Your task to perform on an android device: turn off improve location accuracy Image 0: 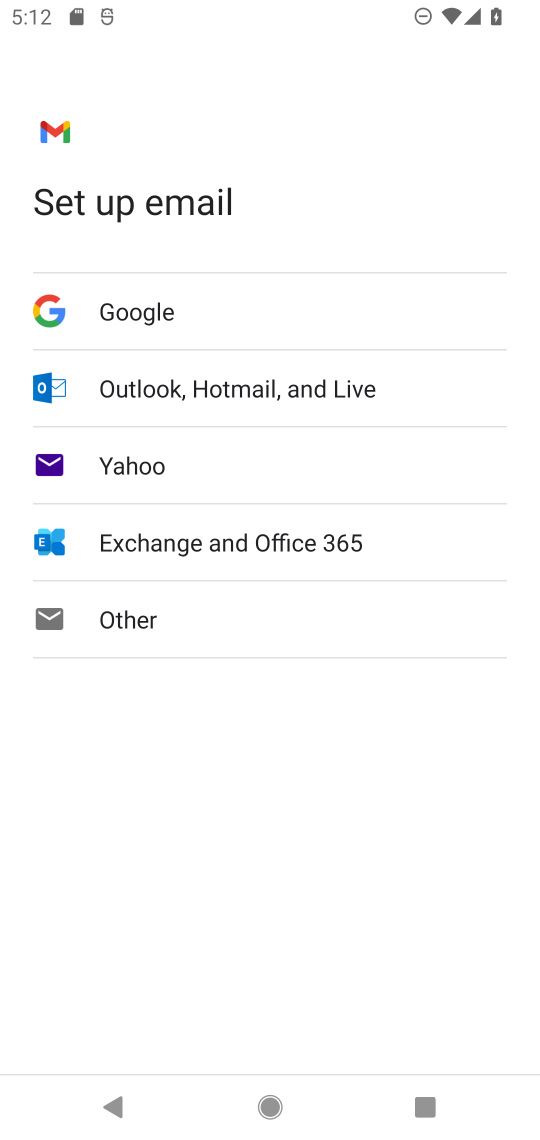
Step 0: press home button
Your task to perform on an android device: turn off improve location accuracy Image 1: 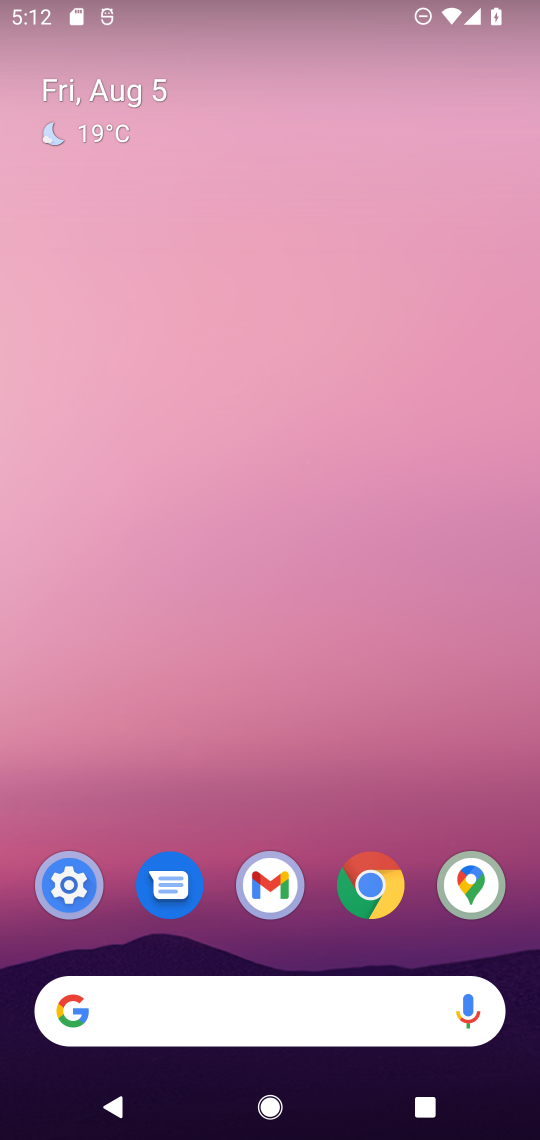
Step 1: drag from (326, 964) to (321, 259)
Your task to perform on an android device: turn off improve location accuracy Image 2: 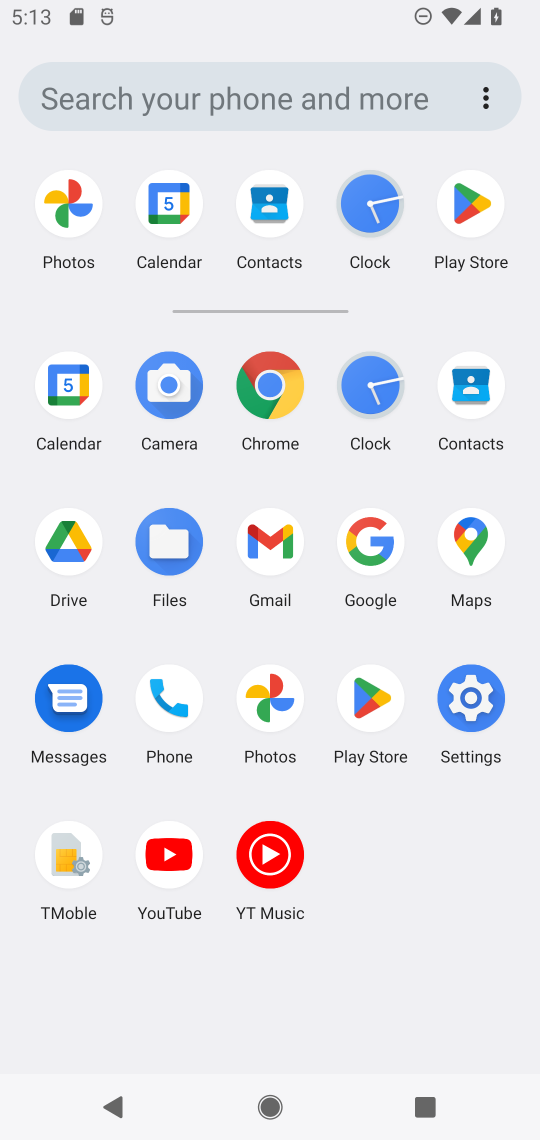
Step 2: click (484, 703)
Your task to perform on an android device: turn off improve location accuracy Image 3: 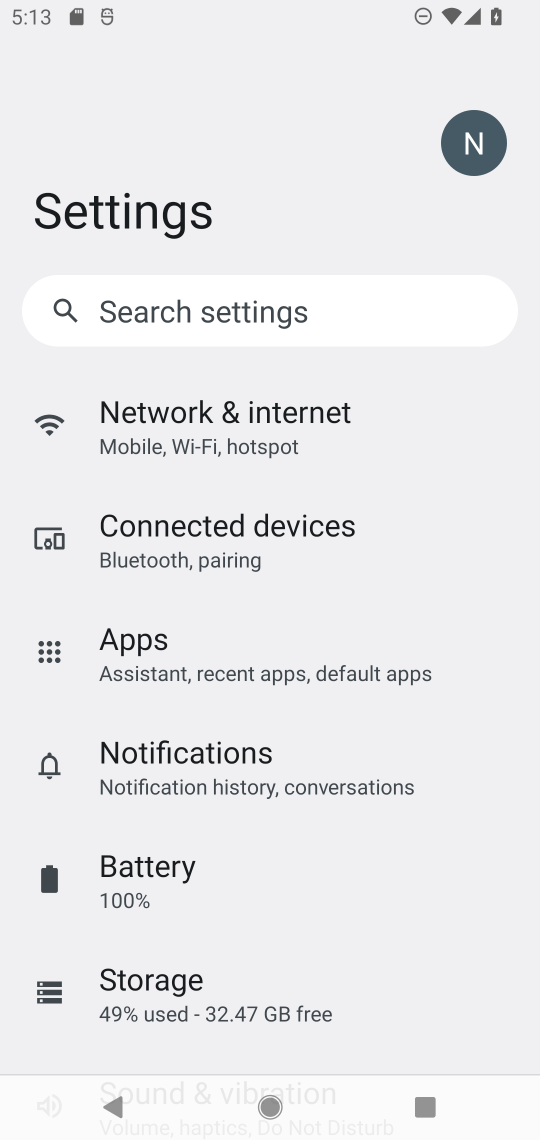
Step 3: drag from (197, 949) to (200, 622)
Your task to perform on an android device: turn off improve location accuracy Image 4: 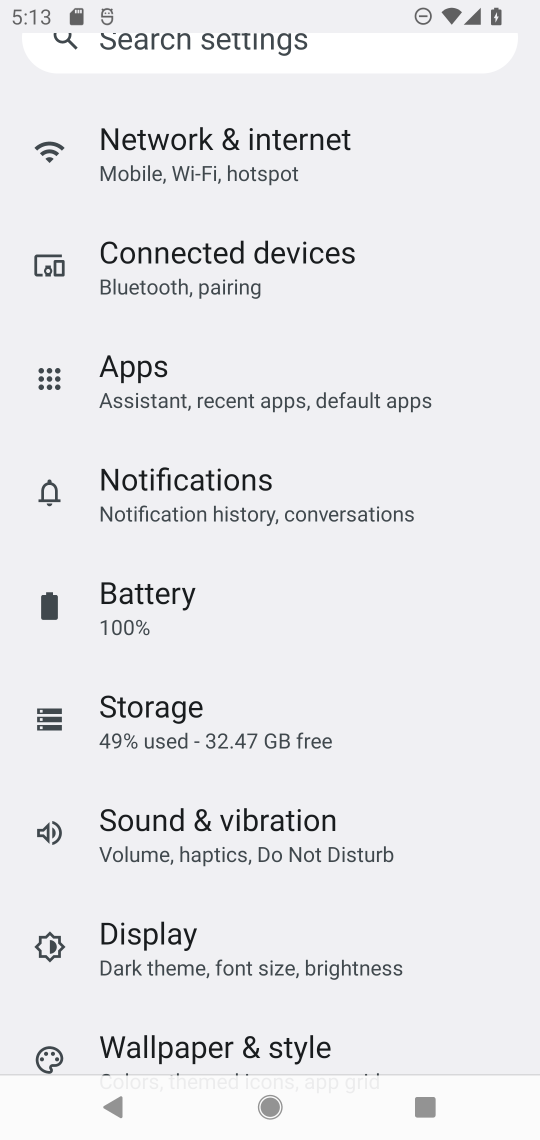
Step 4: drag from (175, 988) to (166, 601)
Your task to perform on an android device: turn off improve location accuracy Image 5: 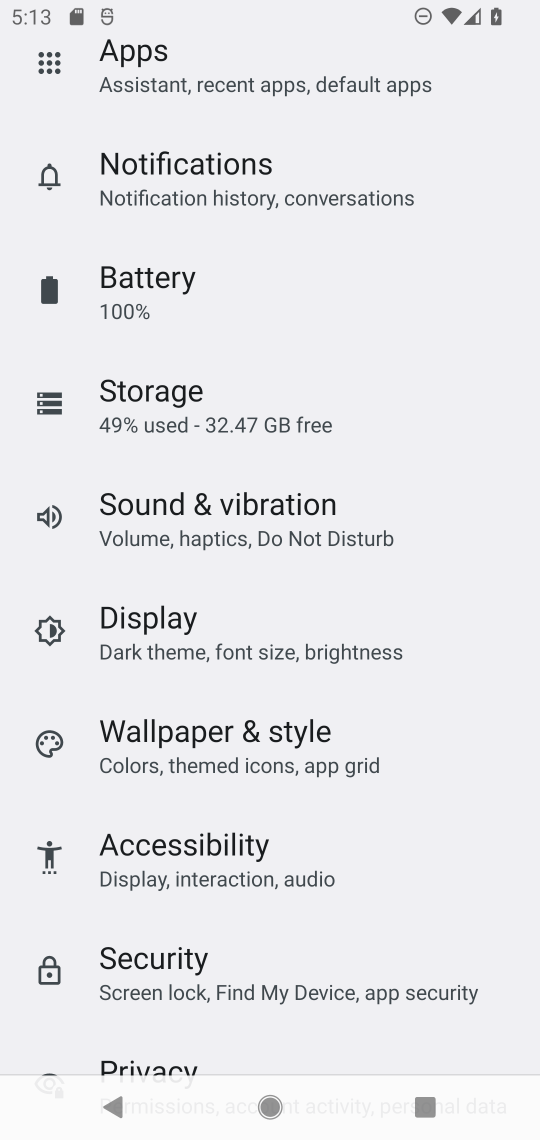
Step 5: drag from (165, 270) to (198, 857)
Your task to perform on an android device: turn off improve location accuracy Image 6: 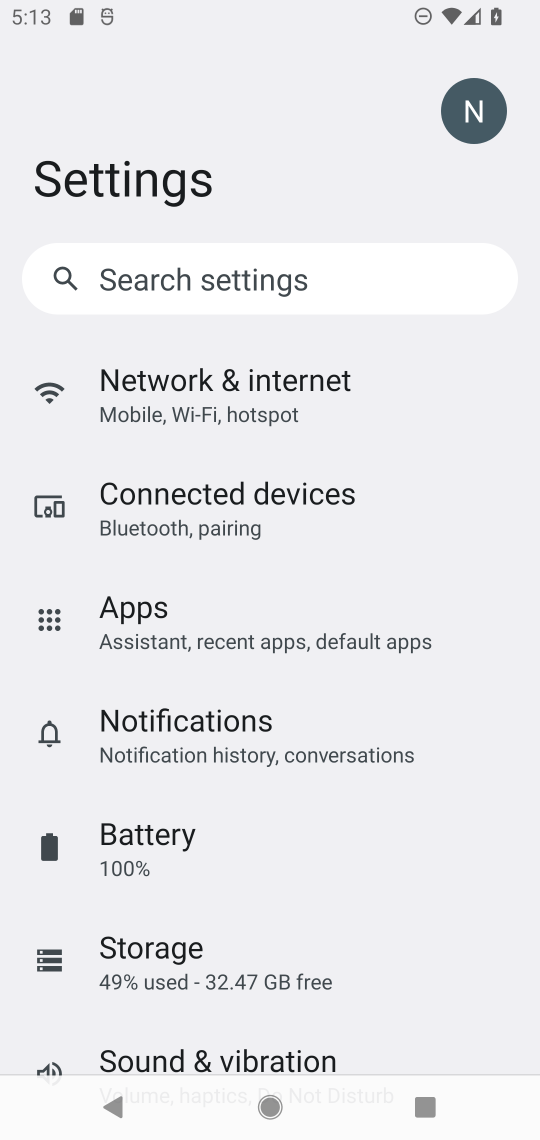
Step 6: drag from (180, 1007) to (162, 519)
Your task to perform on an android device: turn off improve location accuracy Image 7: 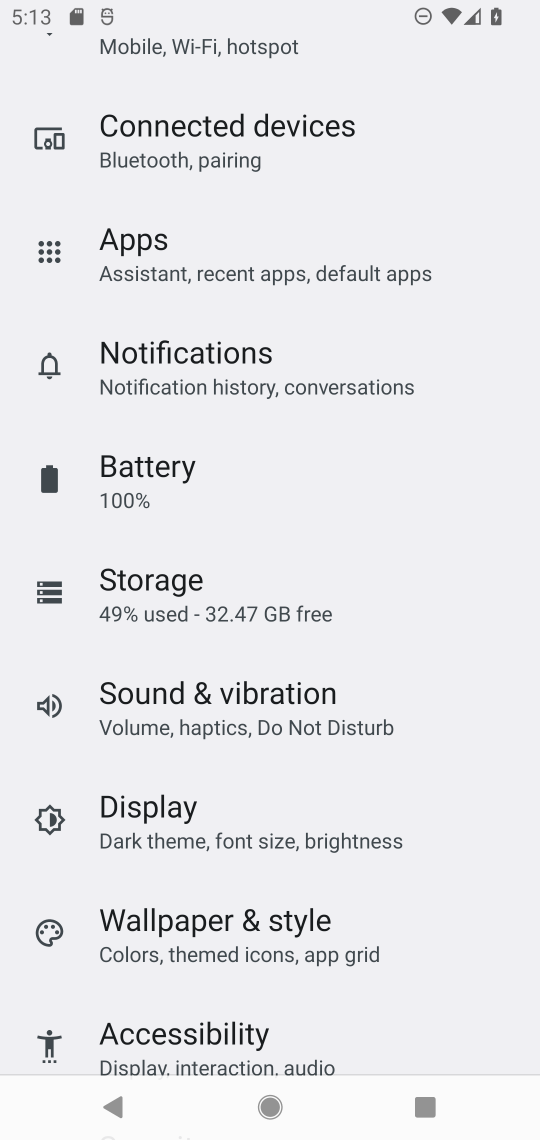
Step 7: drag from (169, 897) to (164, 446)
Your task to perform on an android device: turn off improve location accuracy Image 8: 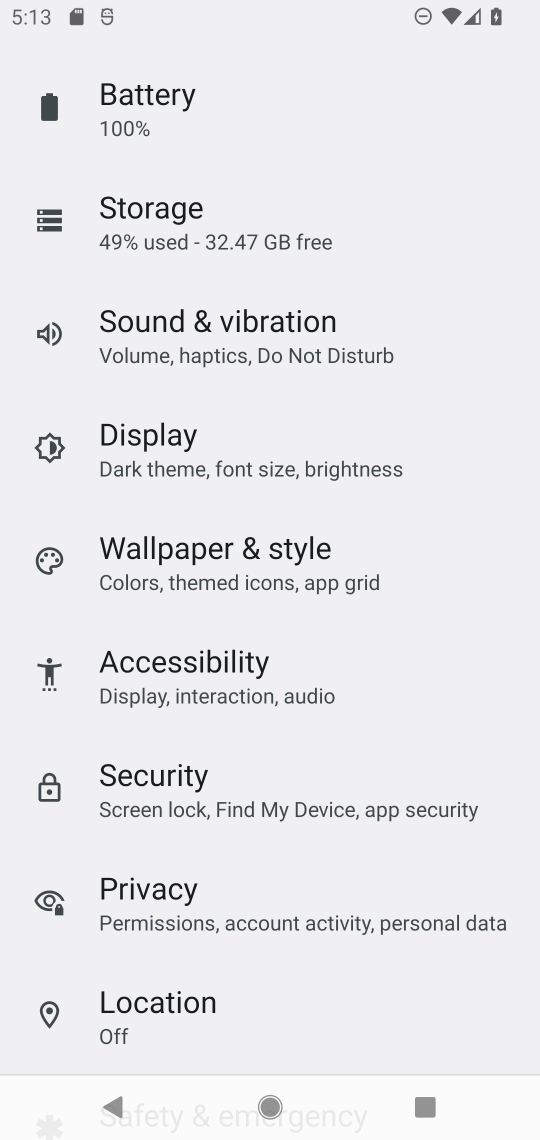
Step 8: click (150, 998)
Your task to perform on an android device: turn off improve location accuracy Image 9: 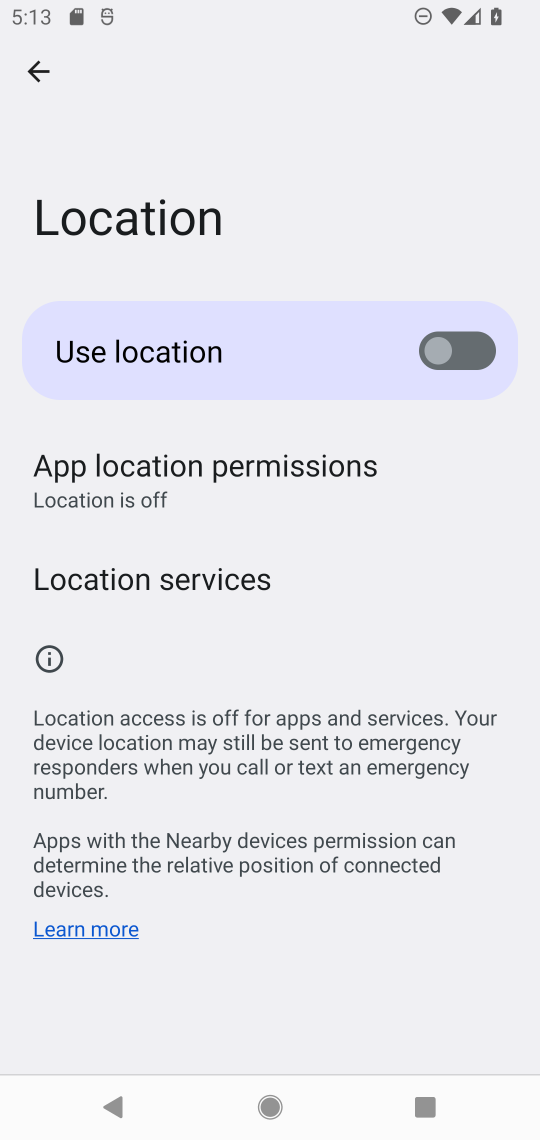
Step 9: drag from (251, 954) to (204, 315)
Your task to perform on an android device: turn off improve location accuracy Image 10: 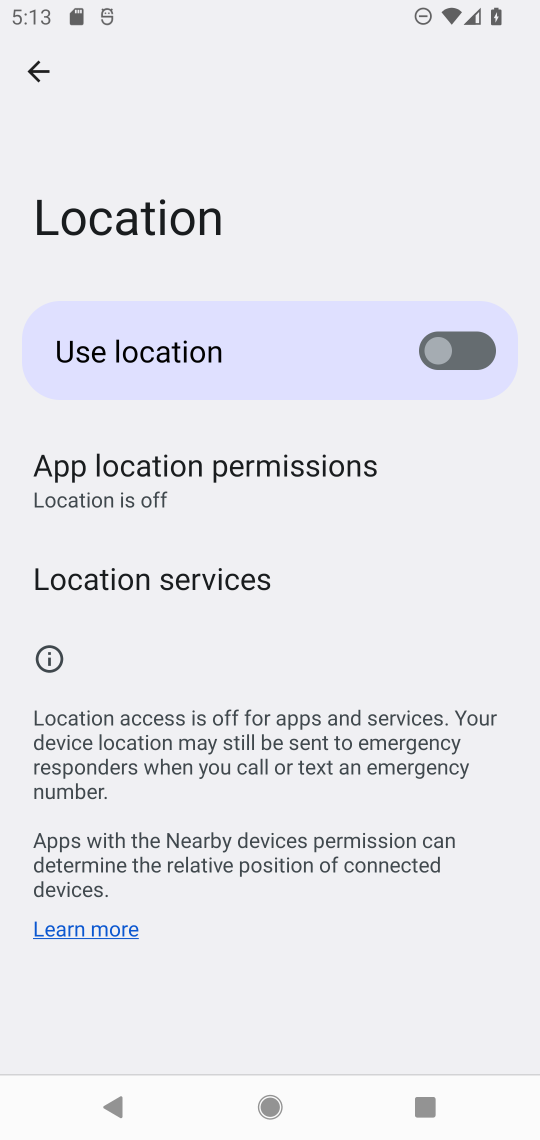
Step 10: drag from (221, 826) to (216, 342)
Your task to perform on an android device: turn off improve location accuracy Image 11: 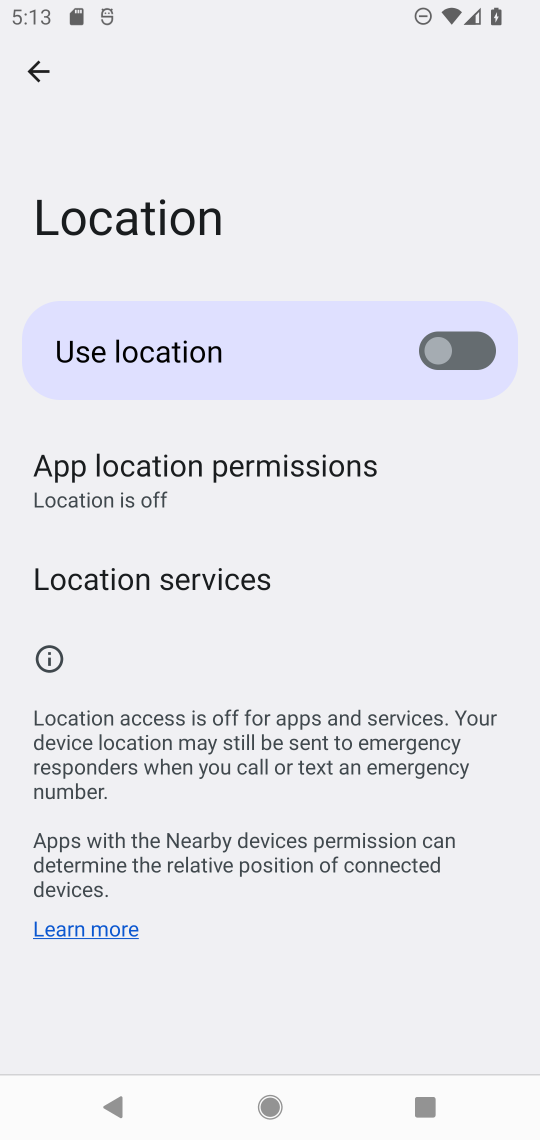
Step 11: click (186, 573)
Your task to perform on an android device: turn off improve location accuracy Image 12: 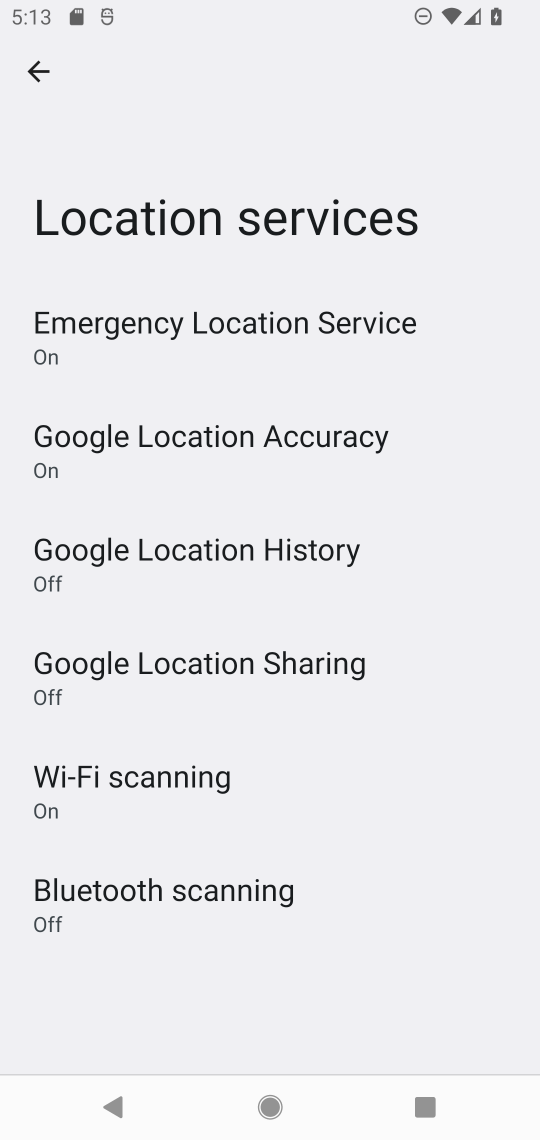
Step 12: click (231, 433)
Your task to perform on an android device: turn off improve location accuracy Image 13: 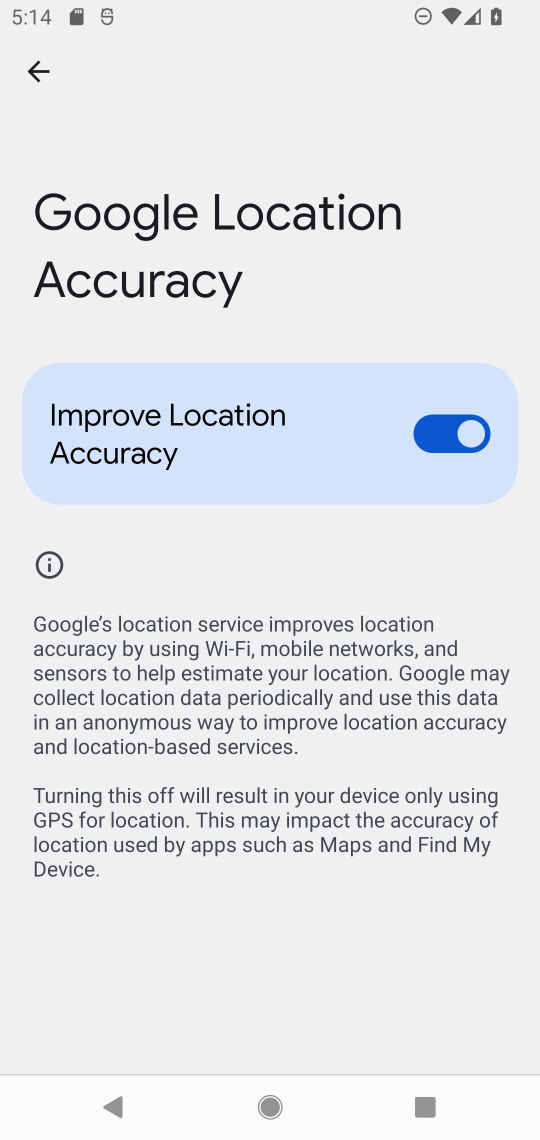
Step 13: click (443, 432)
Your task to perform on an android device: turn off improve location accuracy Image 14: 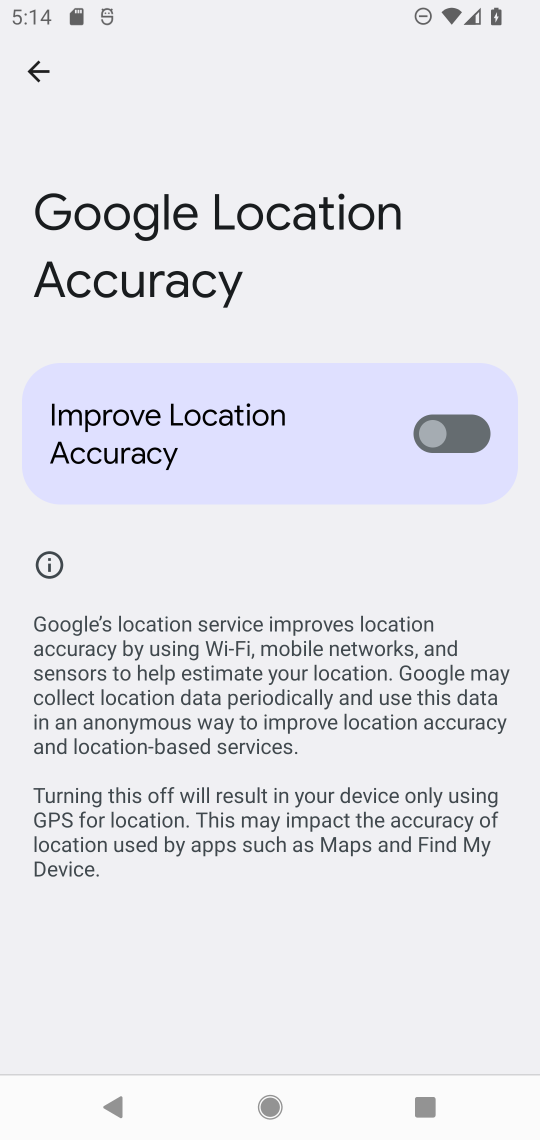
Step 14: task complete